Your task to perform on an android device: toggle improve location accuracy Image 0: 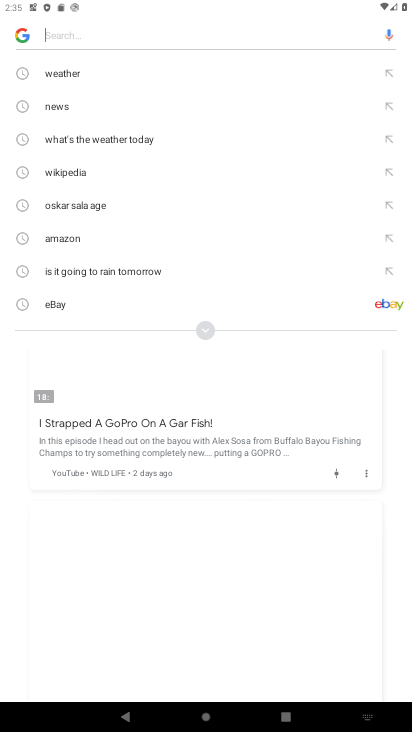
Step 0: press home button
Your task to perform on an android device: toggle improve location accuracy Image 1: 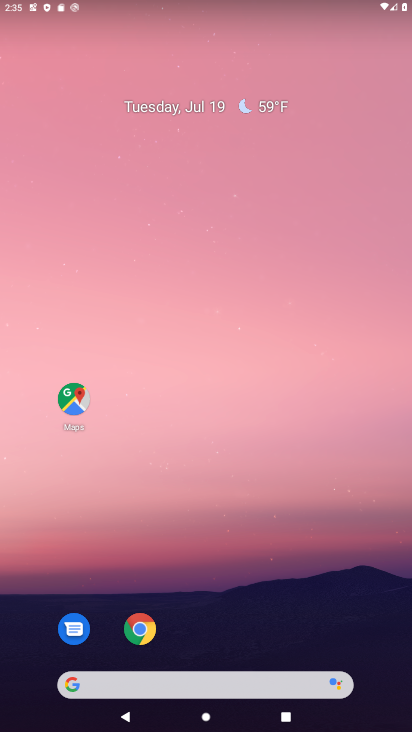
Step 1: drag from (289, 656) to (196, 198)
Your task to perform on an android device: toggle improve location accuracy Image 2: 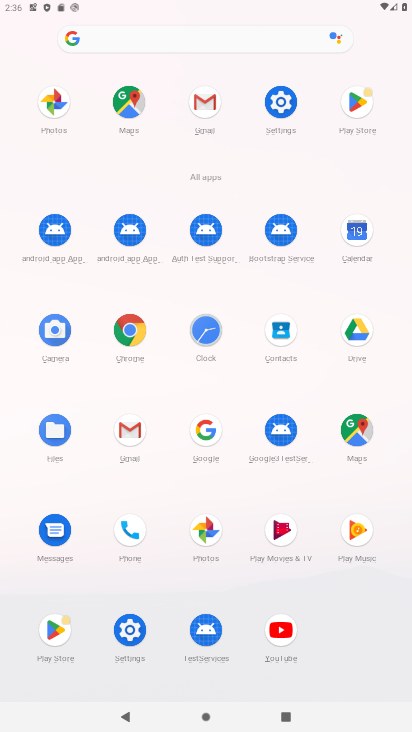
Step 2: click (285, 108)
Your task to perform on an android device: toggle improve location accuracy Image 3: 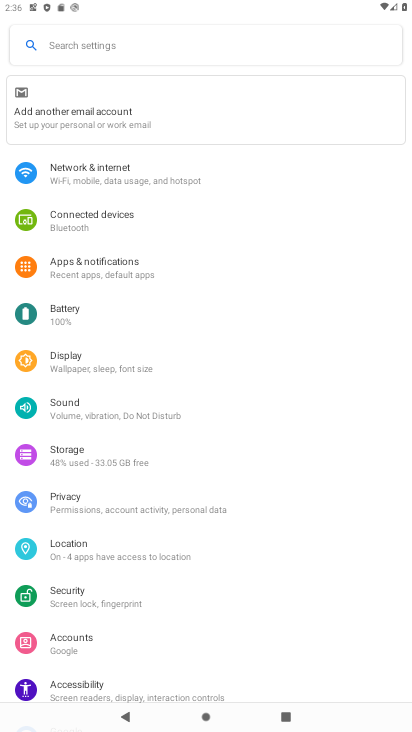
Step 3: task complete